Your task to perform on an android device: What's on my calendar tomorrow? Image 0: 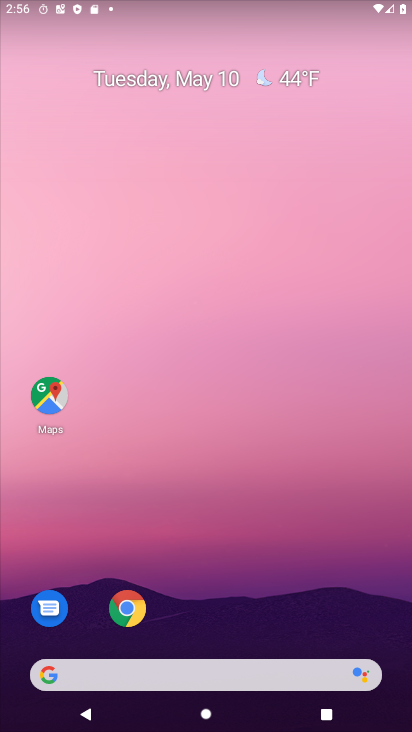
Step 0: drag from (326, 634) to (342, 56)
Your task to perform on an android device: What's on my calendar tomorrow? Image 1: 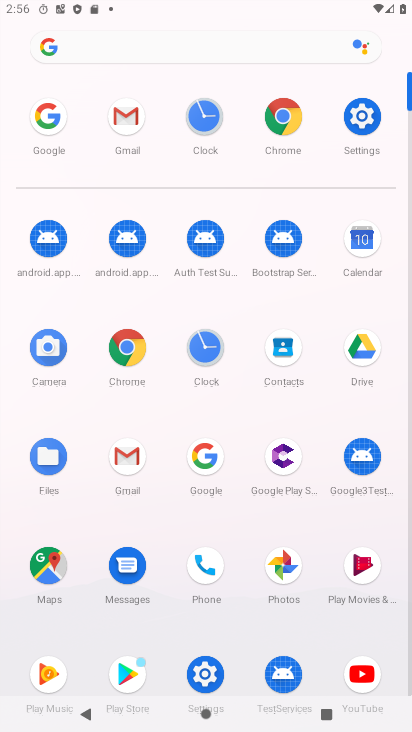
Step 1: click (358, 244)
Your task to perform on an android device: What's on my calendar tomorrow? Image 2: 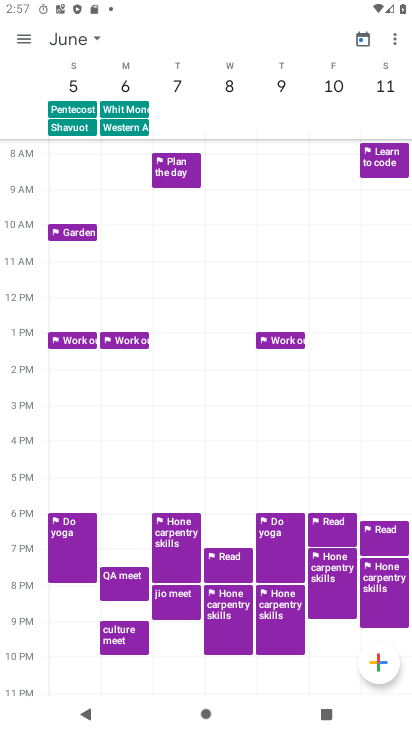
Step 2: click (94, 38)
Your task to perform on an android device: What's on my calendar tomorrow? Image 3: 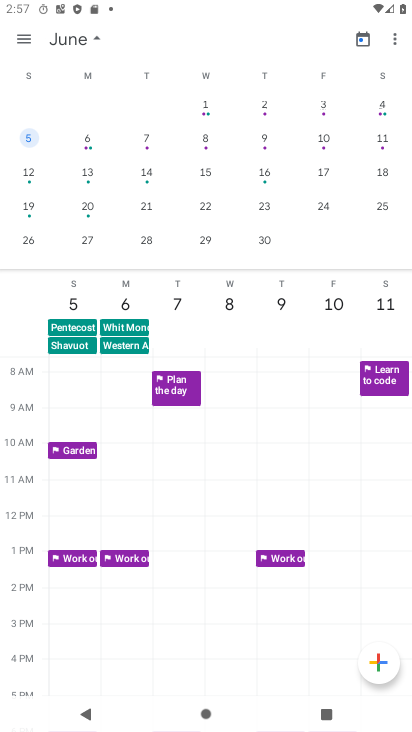
Step 3: drag from (85, 167) to (405, 220)
Your task to perform on an android device: What's on my calendar tomorrow? Image 4: 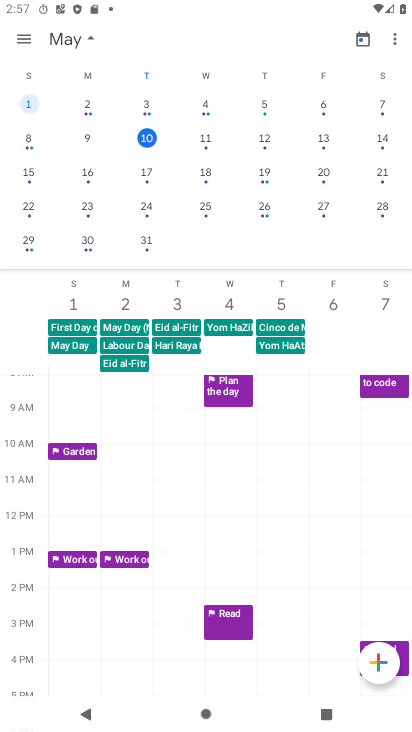
Step 4: click (205, 138)
Your task to perform on an android device: What's on my calendar tomorrow? Image 5: 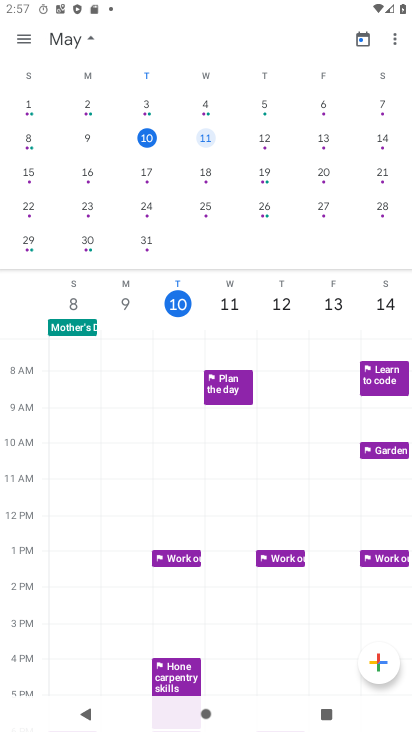
Step 5: click (25, 38)
Your task to perform on an android device: What's on my calendar tomorrow? Image 6: 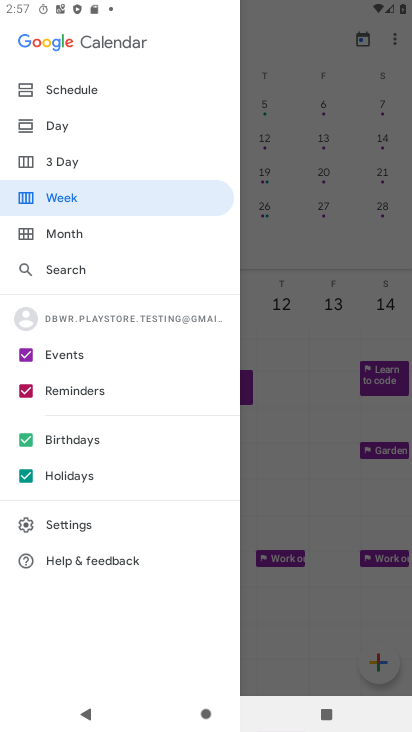
Step 6: click (44, 75)
Your task to perform on an android device: What's on my calendar tomorrow? Image 7: 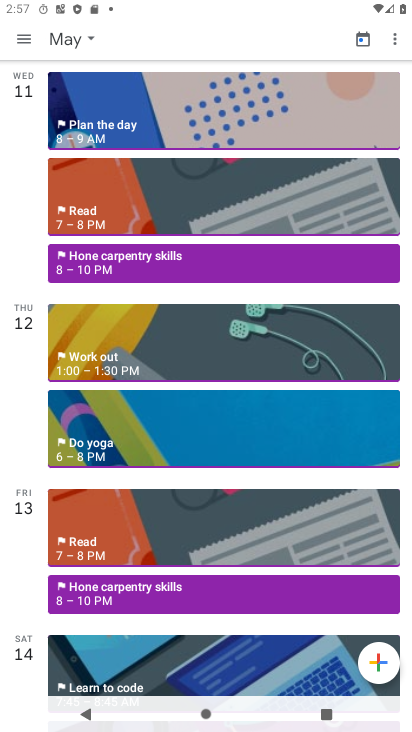
Step 7: click (132, 258)
Your task to perform on an android device: What's on my calendar tomorrow? Image 8: 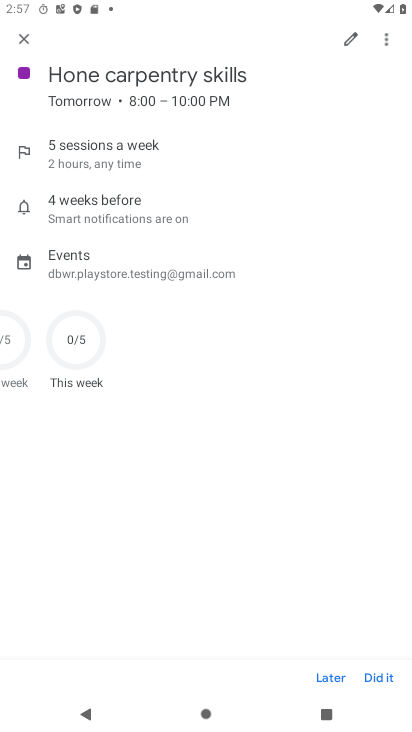
Step 8: task complete